Your task to perform on an android device: Clear the cart on costco.com. Image 0: 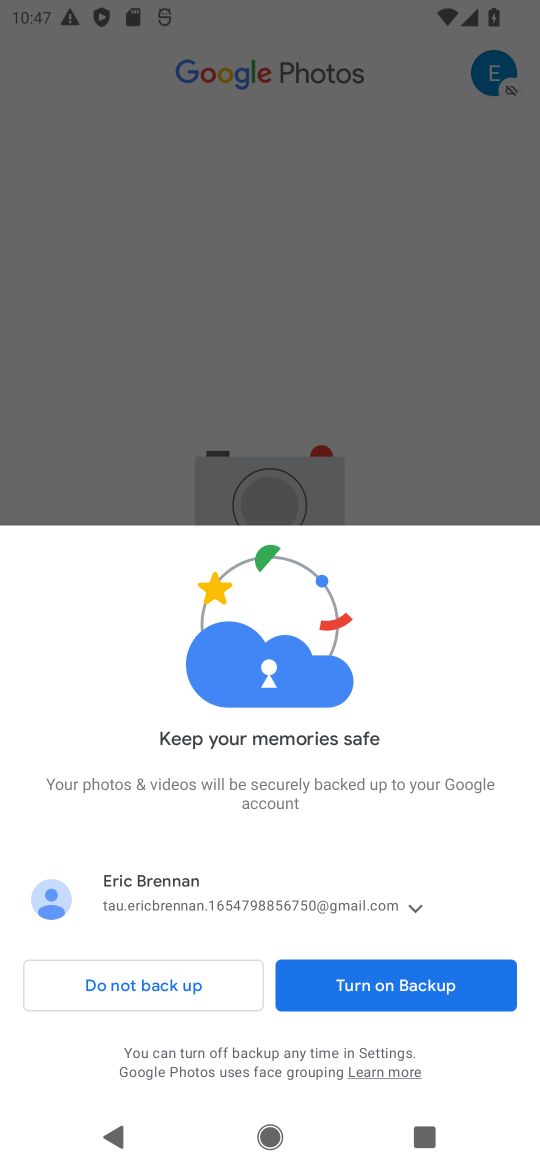
Step 0: press home button
Your task to perform on an android device: Clear the cart on costco.com. Image 1: 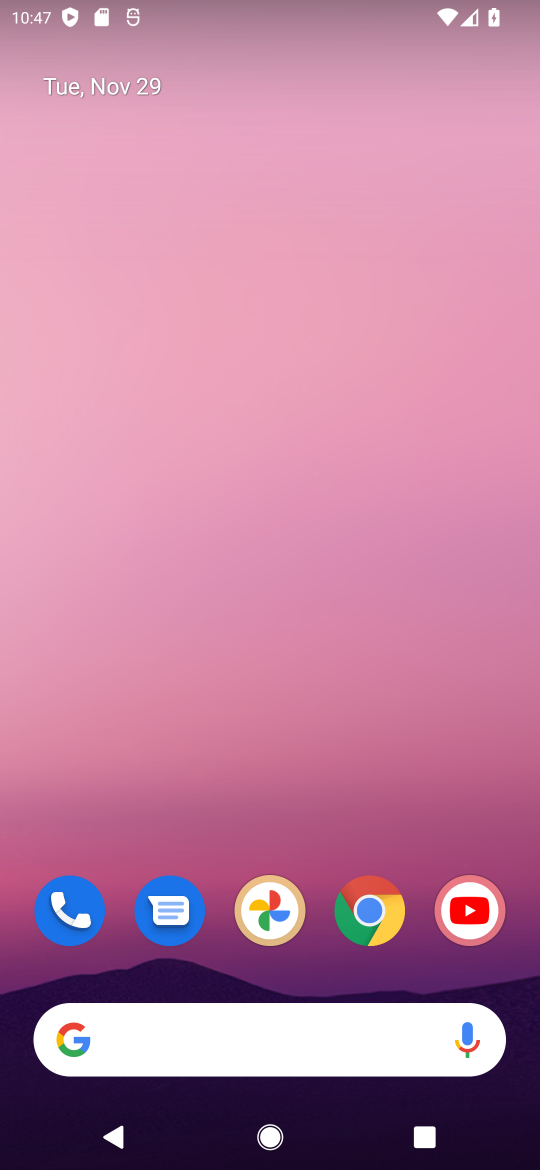
Step 1: click (368, 922)
Your task to perform on an android device: Clear the cart on costco.com. Image 2: 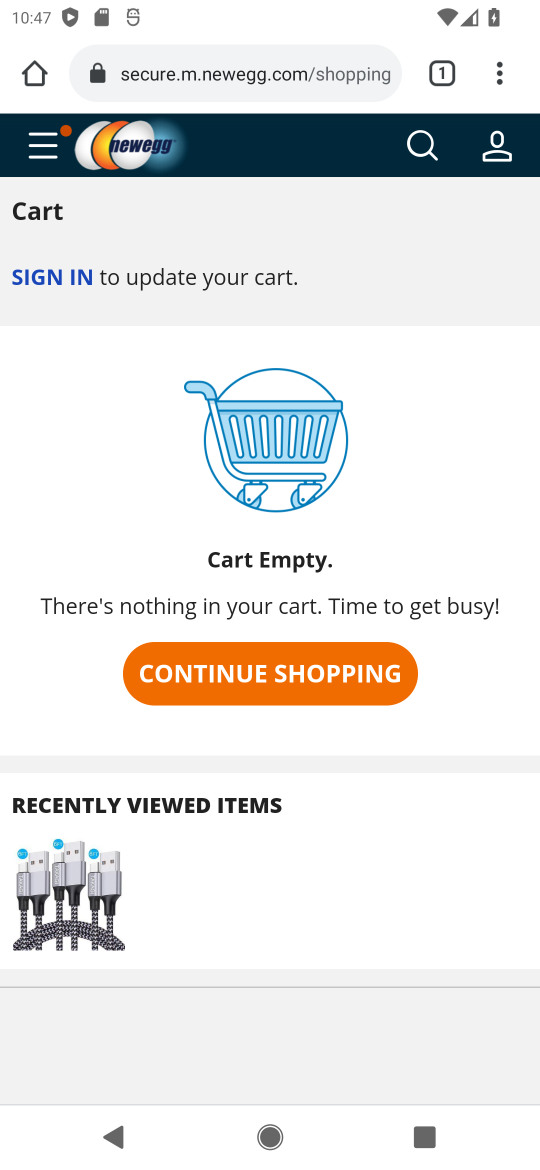
Step 2: click (224, 76)
Your task to perform on an android device: Clear the cart on costco.com. Image 3: 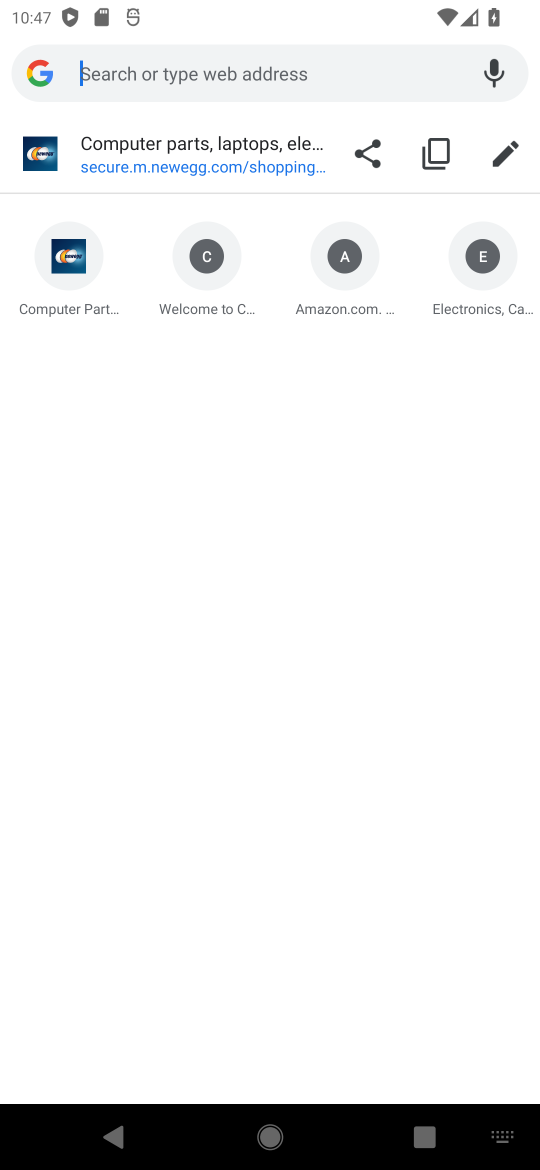
Step 3: type "costco.com"
Your task to perform on an android device: Clear the cart on costco.com. Image 4: 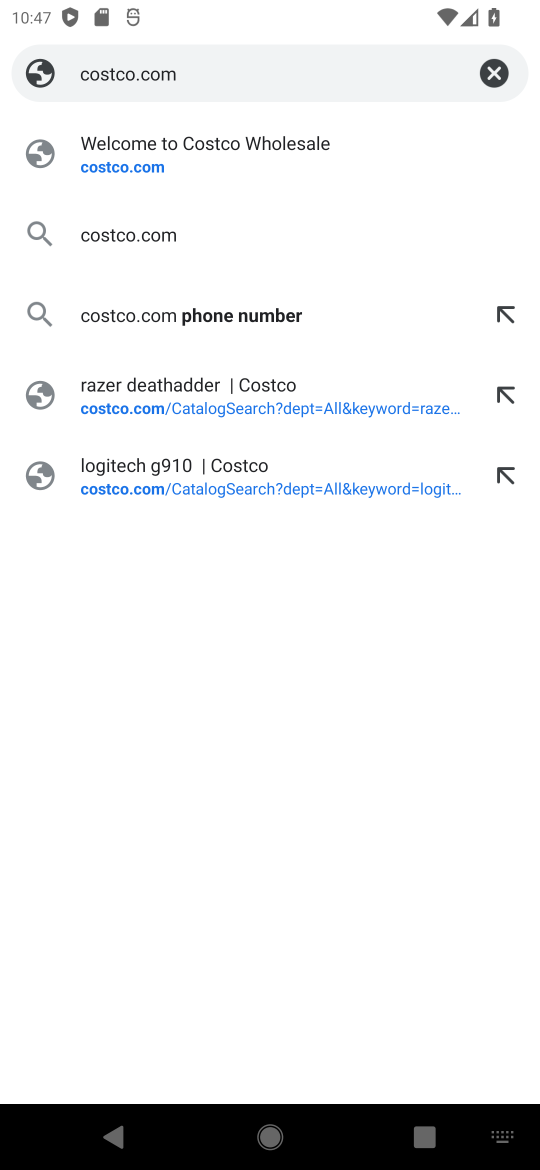
Step 4: click (126, 166)
Your task to perform on an android device: Clear the cart on costco.com. Image 5: 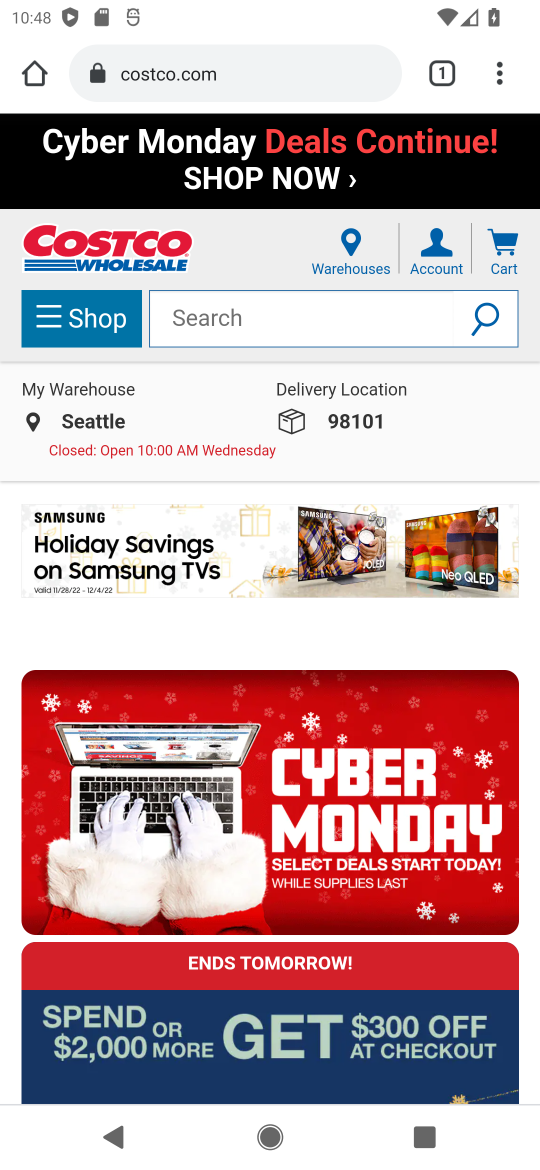
Step 5: click (505, 262)
Your task to perform on an android device: Clear the cart on costco.com. Image 6: 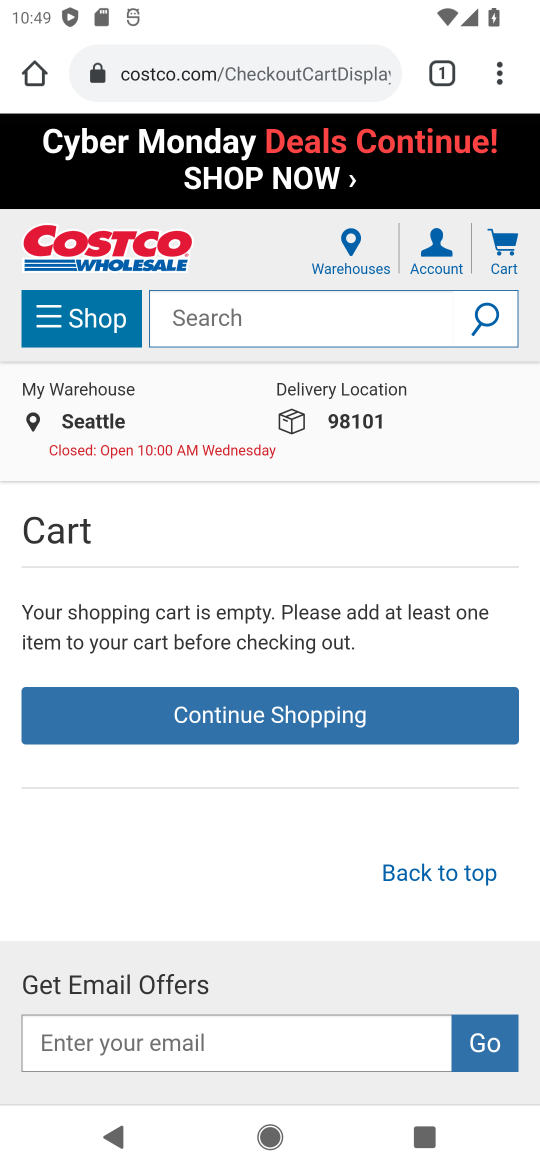
Step 6: task complete